Your task to perform on an android device: change notifications settings Image 0: 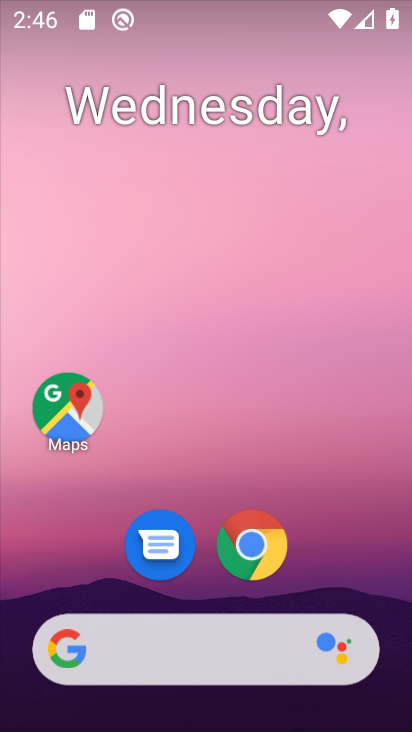
Step 0: drag from (208, 712) to (202, 166)
Your task to perform on an android device: change notifications settings Image 1: 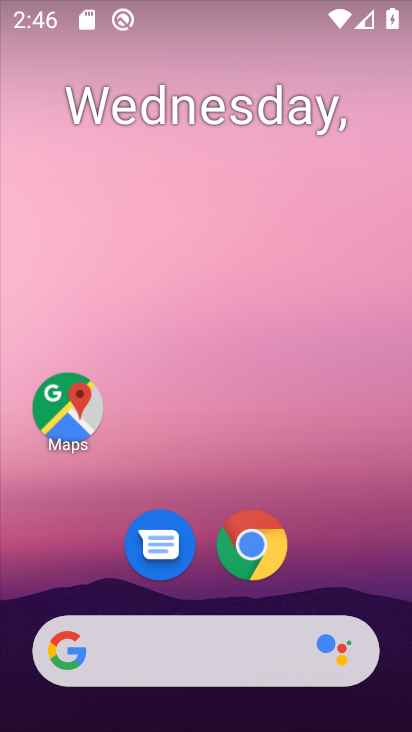
Step 1: drag from (201, 668) to (238, 204)
Your task to perform on an android device: change notifications settings Image 2: 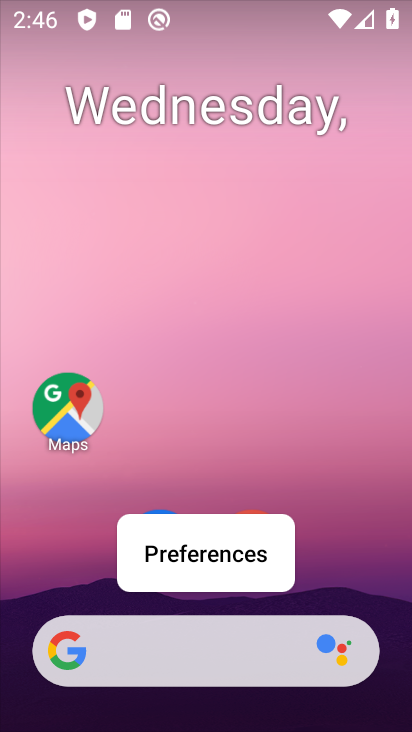
Step 2: drag from (194, 680) to (187, 125)
Your task to perform on an android device: change notifications settings Image 3: 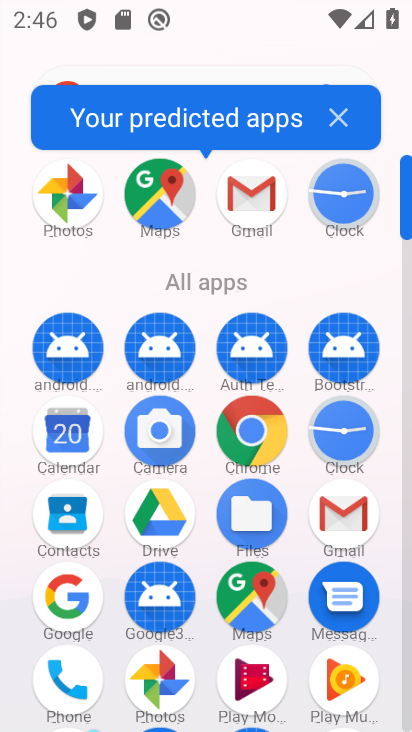
Step 3: drag from (213, 643) to (205, 228)
Your task to perform on an android device: change notifications settings Image 4: 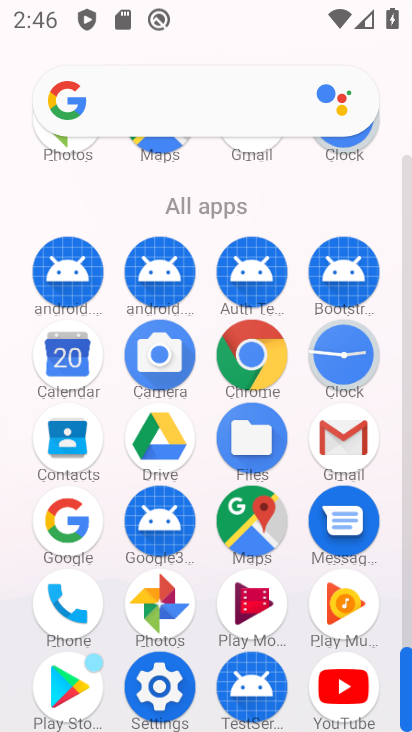
Step 4: click (155, 678)
Your task to perform on an android device: change notifications settings Image 5: 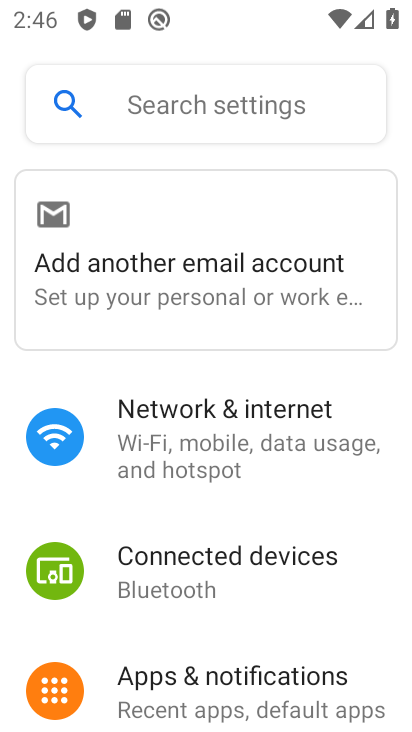
Step 5: click (207, 683)
Your task to perform on an android device: change notifications settings Image 6: 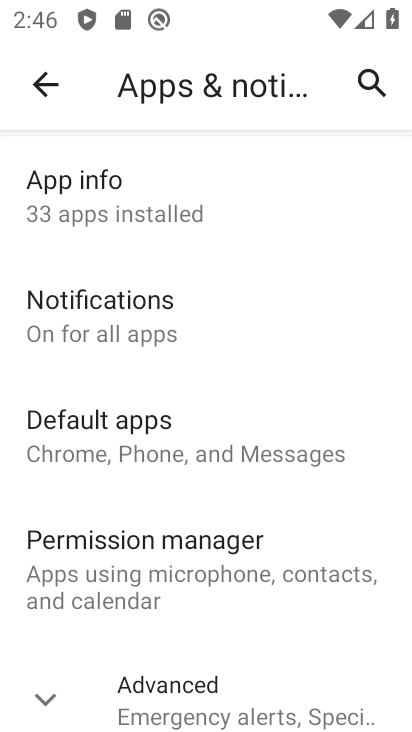
Step 6: click (114, 317)
Your task to perform on an android device: change notifications settings Image 7: 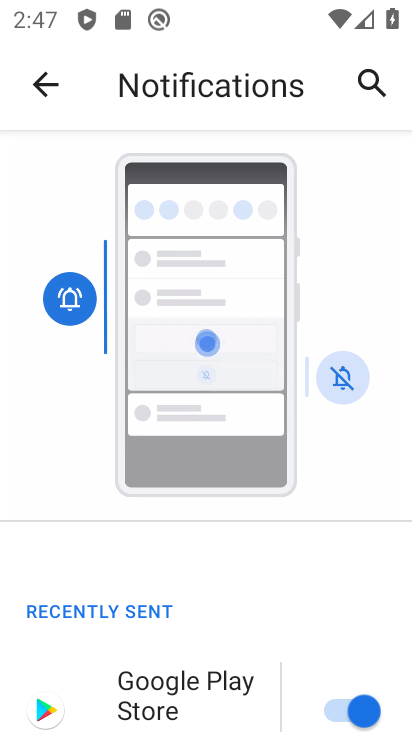
Step 7: drag from (151, 660) to (157, 261)
Your task to perform on an android device: change notifications settings Image 8: 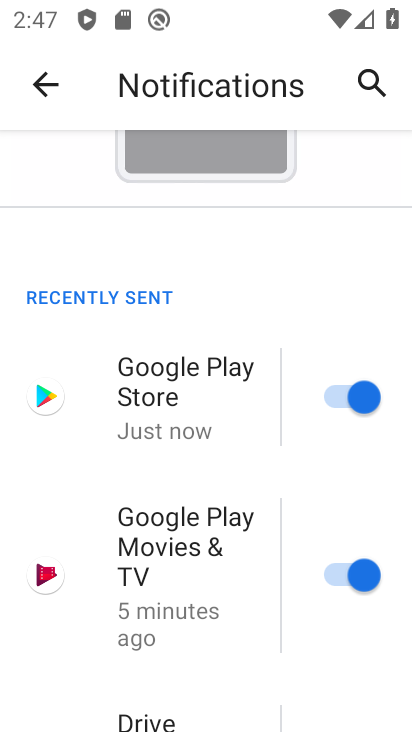
Step 8: drag from (207, 642) to (191, 210)
Your task to perform on an android device: change notifications settings Image 9: 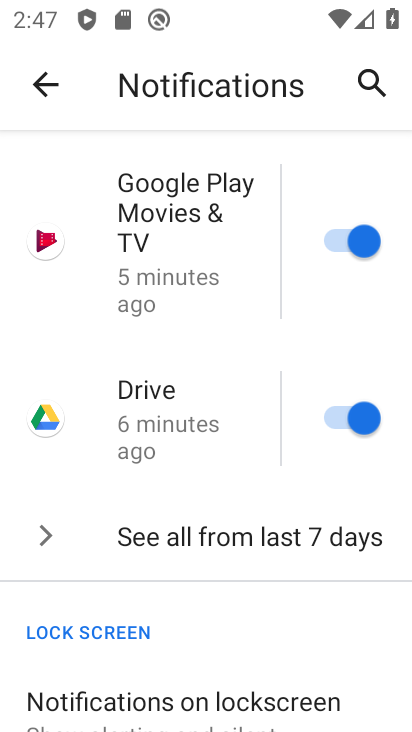
Step 9: drag from (229, 674) to (232, 168)
Your task to perform on an android device: change notifications settings Image 10: 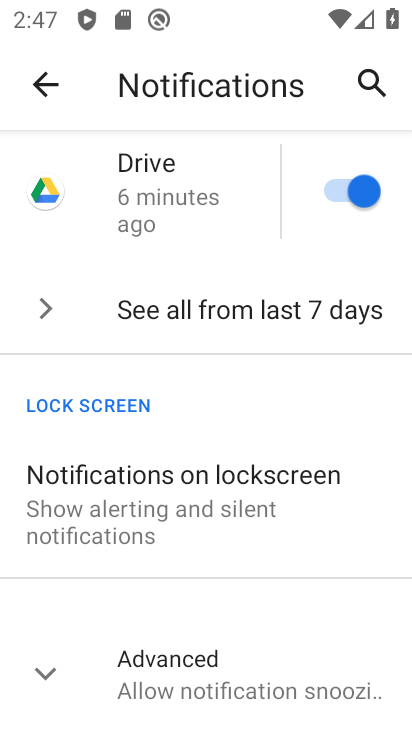
Step 10: click (179, 671)
Your task to perform on an android device: change notifications settings Image 11: 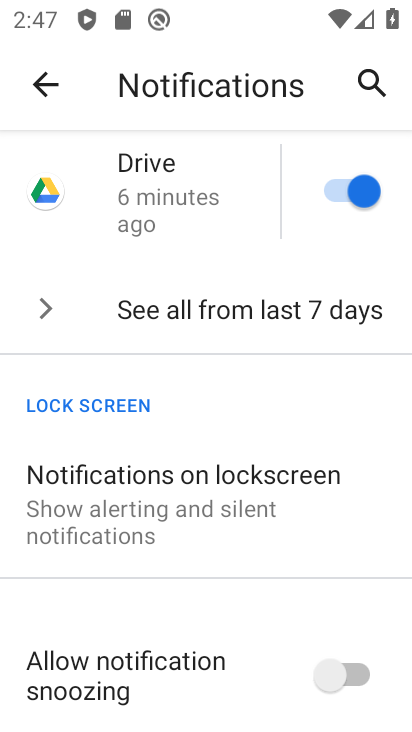
Step 11: drag from (199, 702) to (193, 274)
Your task to perform on an android device: change notifications settings Image 12: 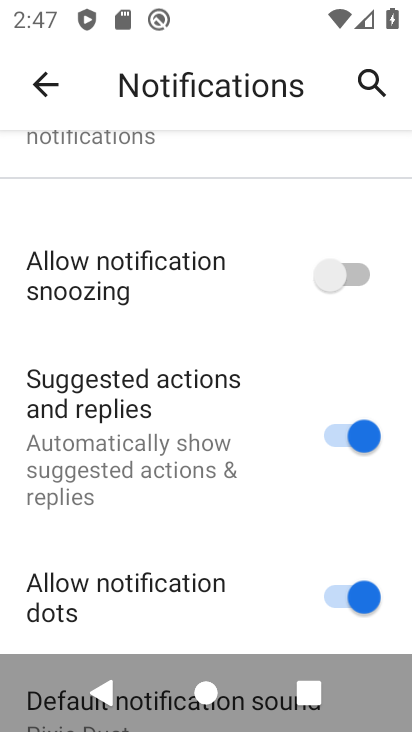
Step 12: click (358, 277)
Your task to perform on an android device: change notifications settings Image 13: 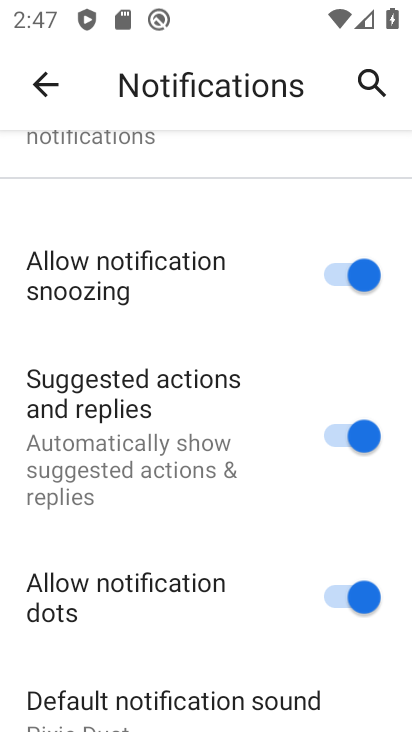
Step 13: task complete